Your task to perform on an android device: Go to notification settings Image 0: 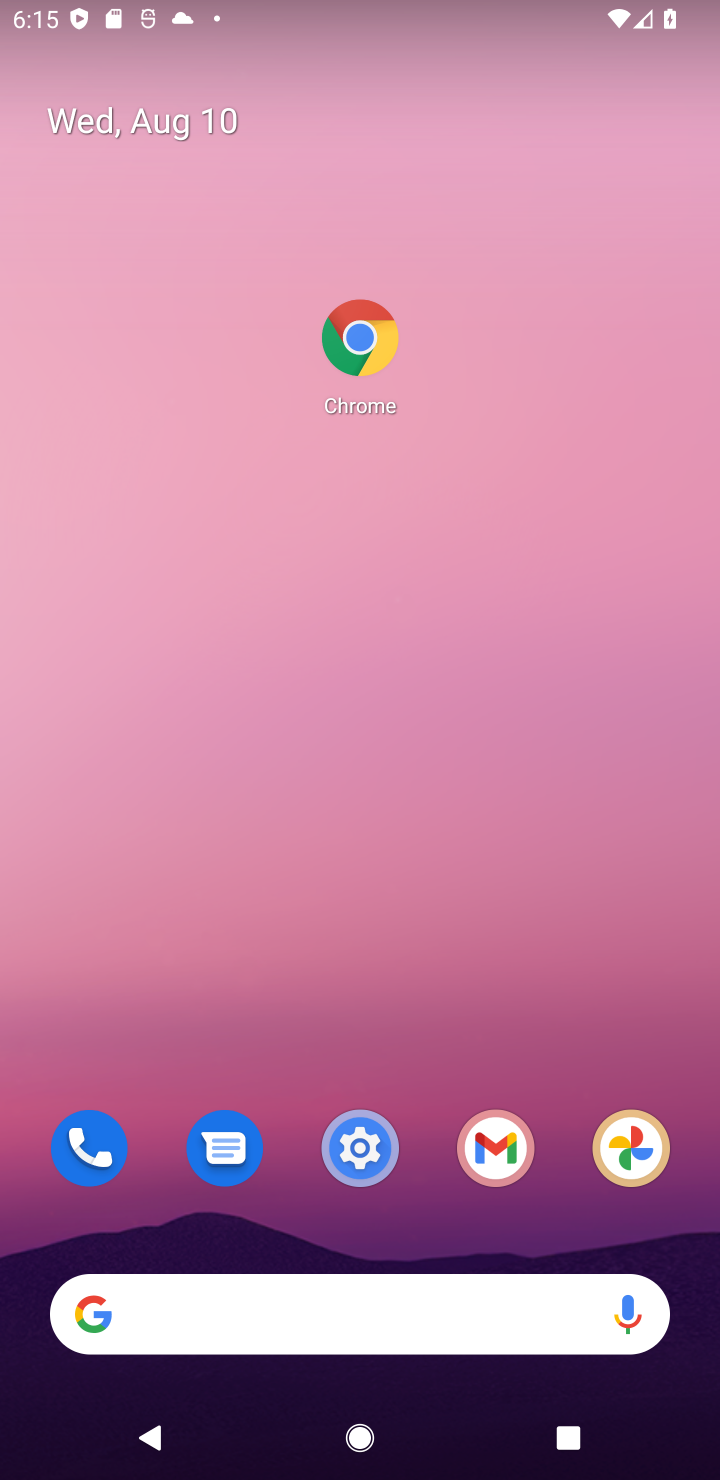
Step 0: click (335, 1156)
Your task to perform on an android device: Go to notification settings Image 1: 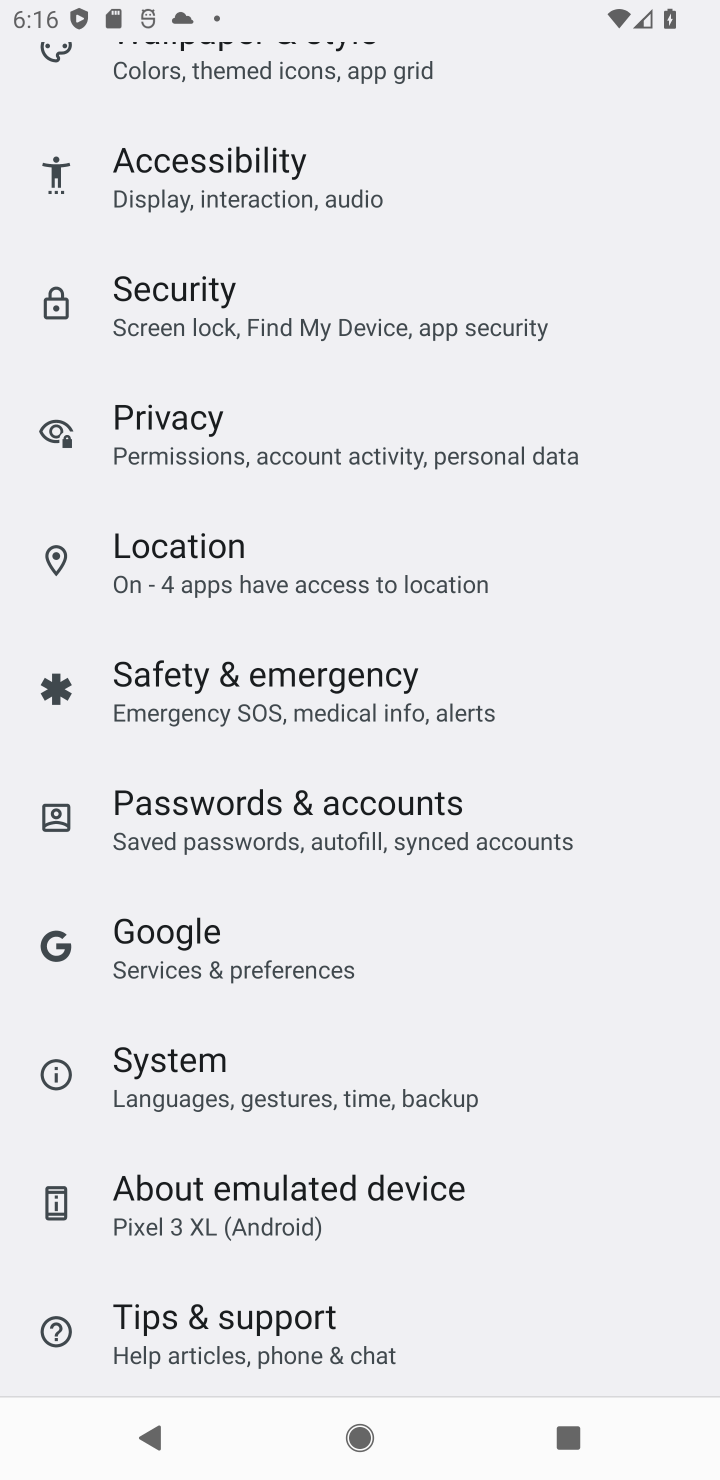
Step 1: drag from (677, 474) to (597, 899)
Your task to perform on an android device: Go to notification settings Image 2: 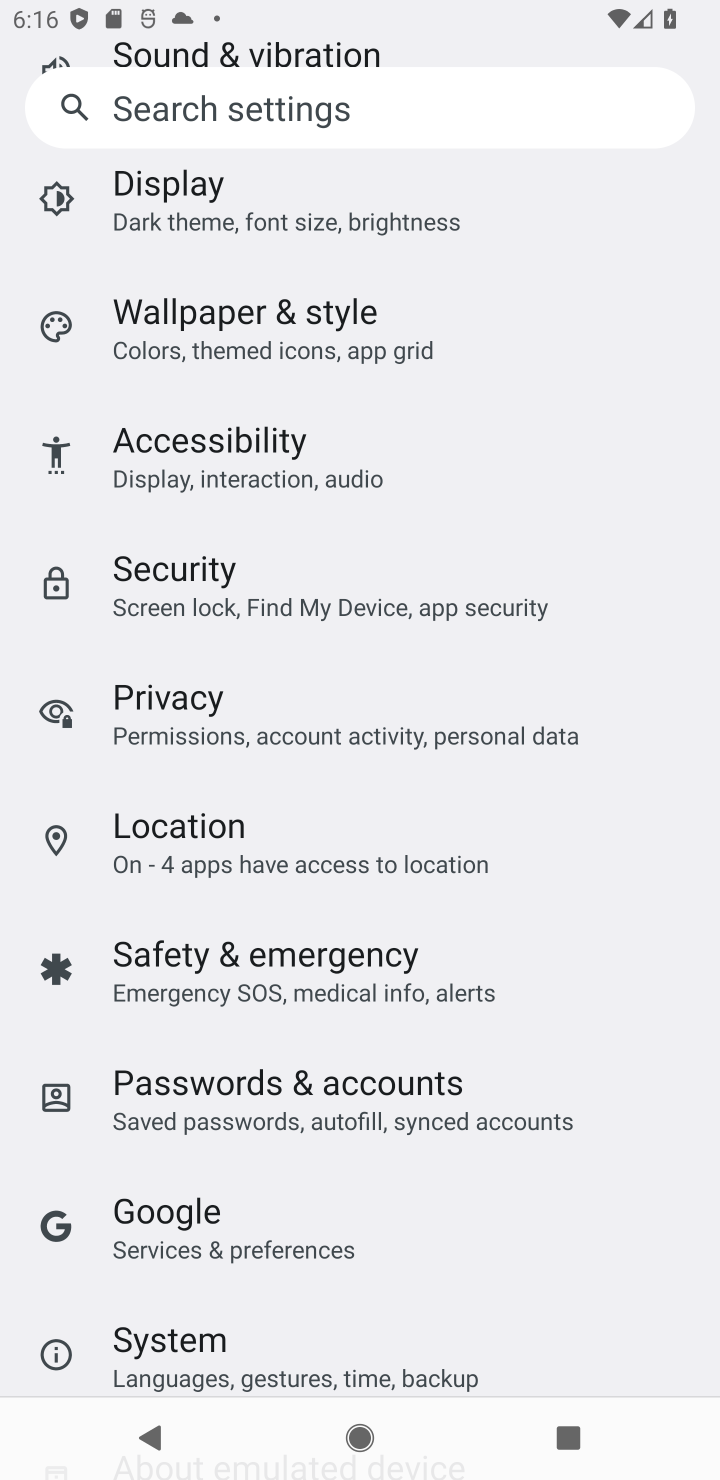
Step 2: drag from (390, 505) to (343, 835)
Your task to perform on an android device: Go to notification settings Image 3: 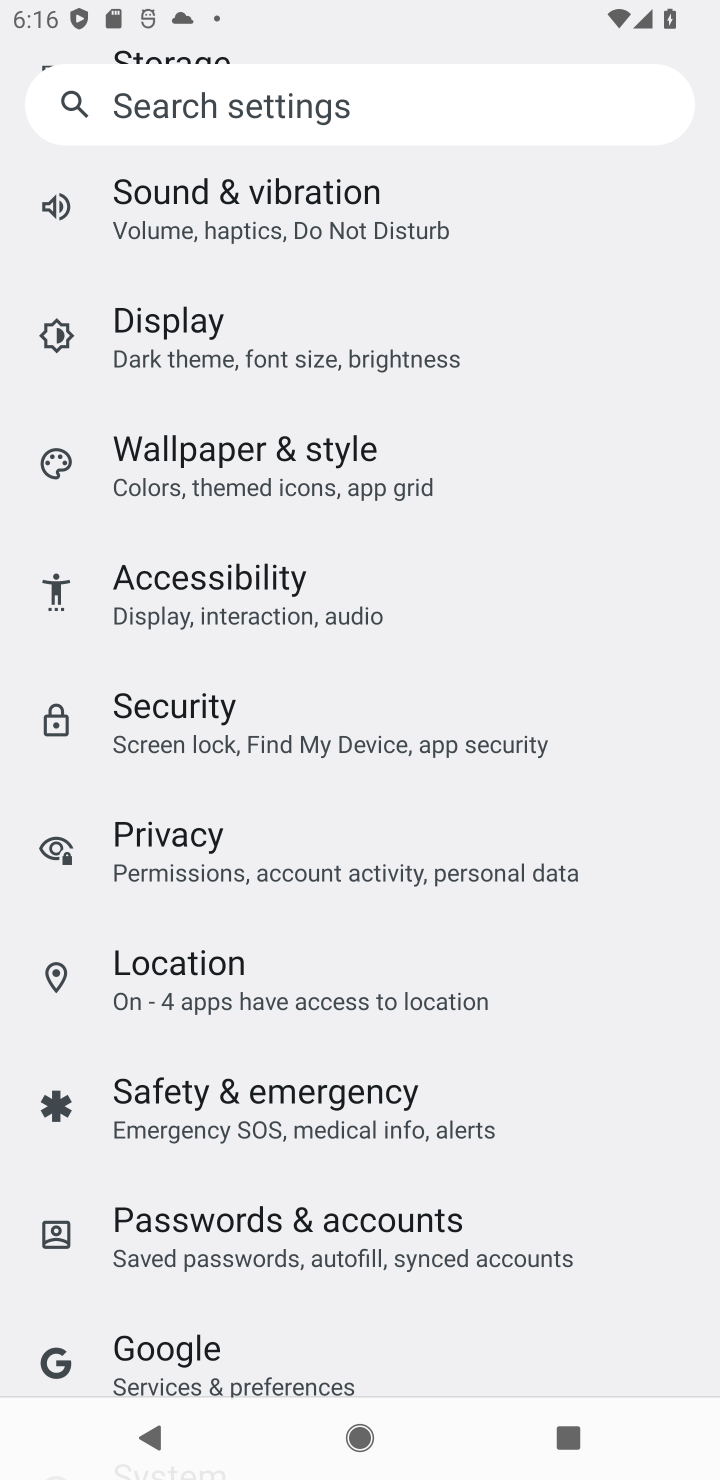
Step 3: drag from (571, 489) to (583, 772)
Your task to perform on an android device: Go to notification settings Image 4: 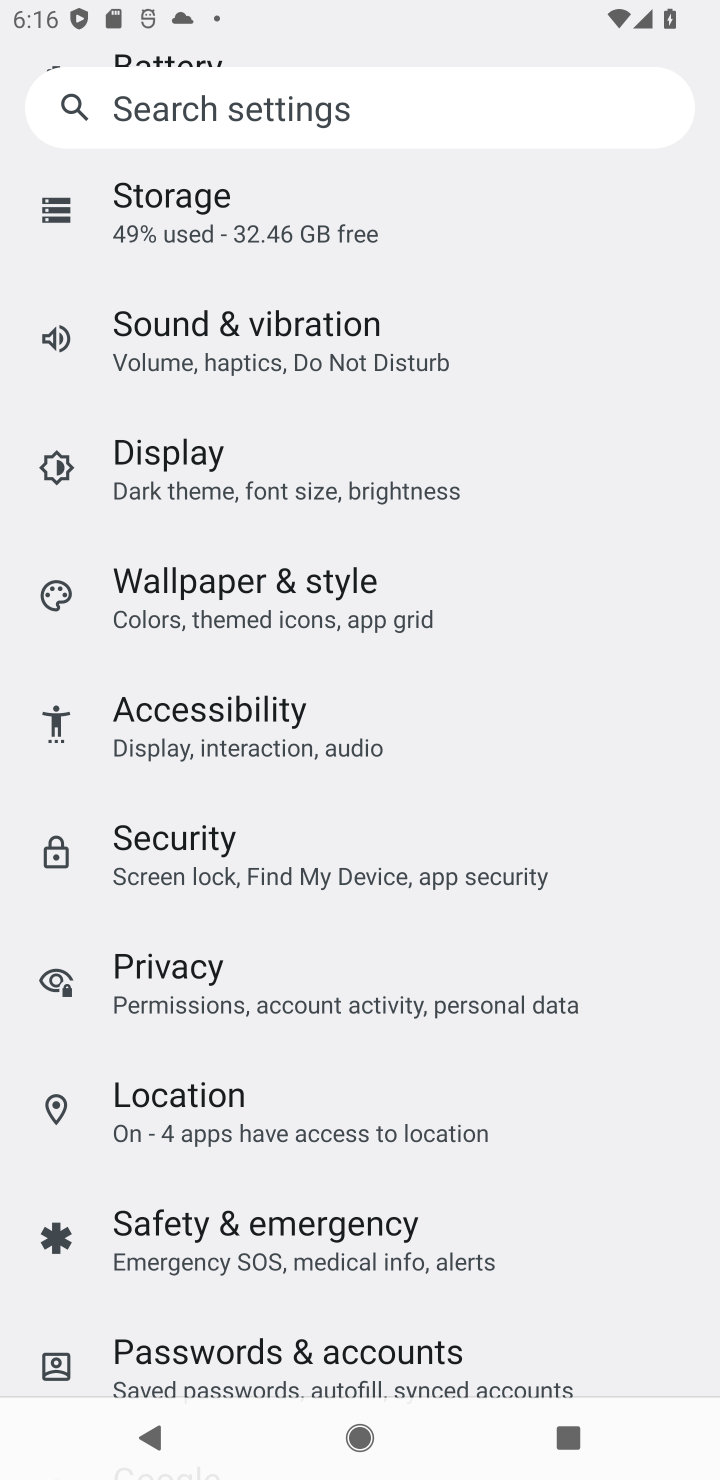
Step 4: drag from (349, 478) to (257, 1066)
Your task to perform on an android device: Go to notification settings Image 5: 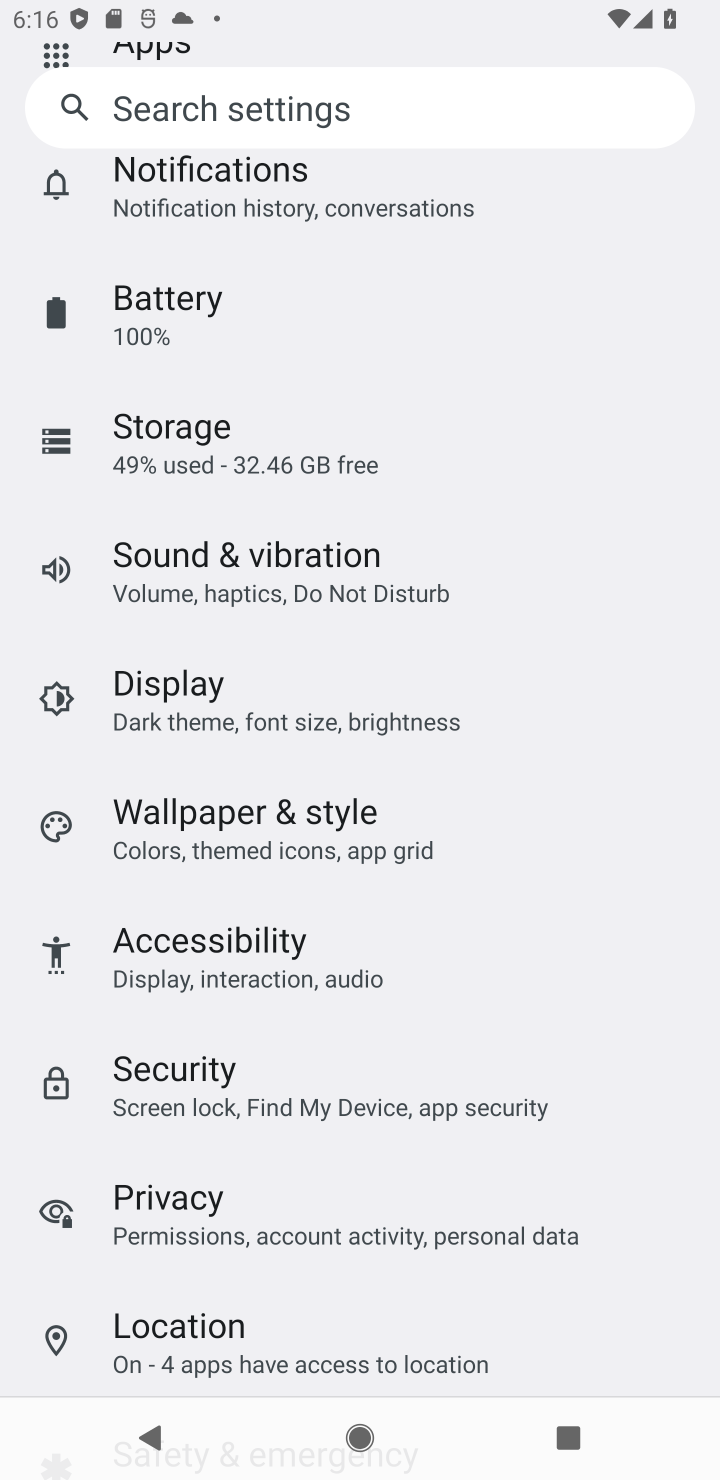
Step 5: drag from (482, 449) to (402, 845)
Your task to perform on an android device: Go to notification settings Image 6: 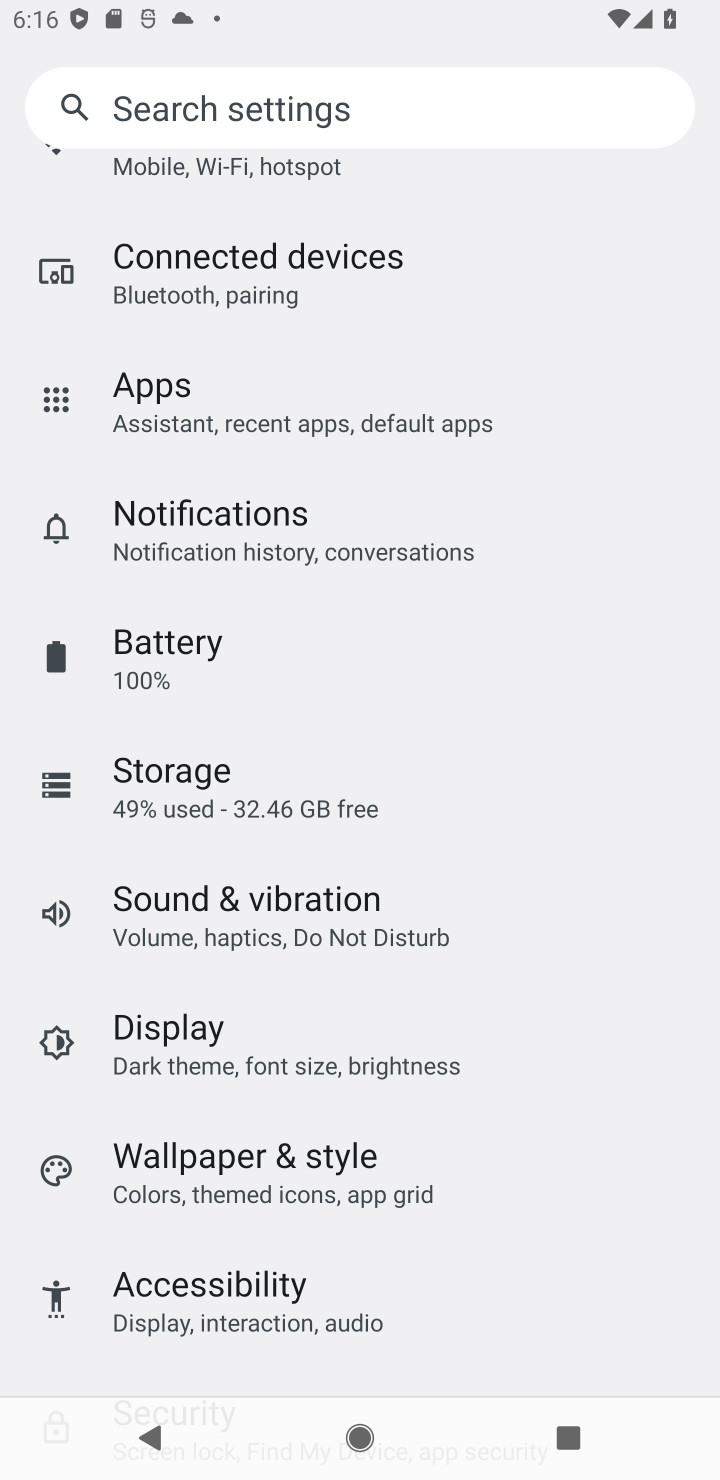
Step 6: click (322, 519)
Your task to perform on an android device: Go to notification settings Image 7: 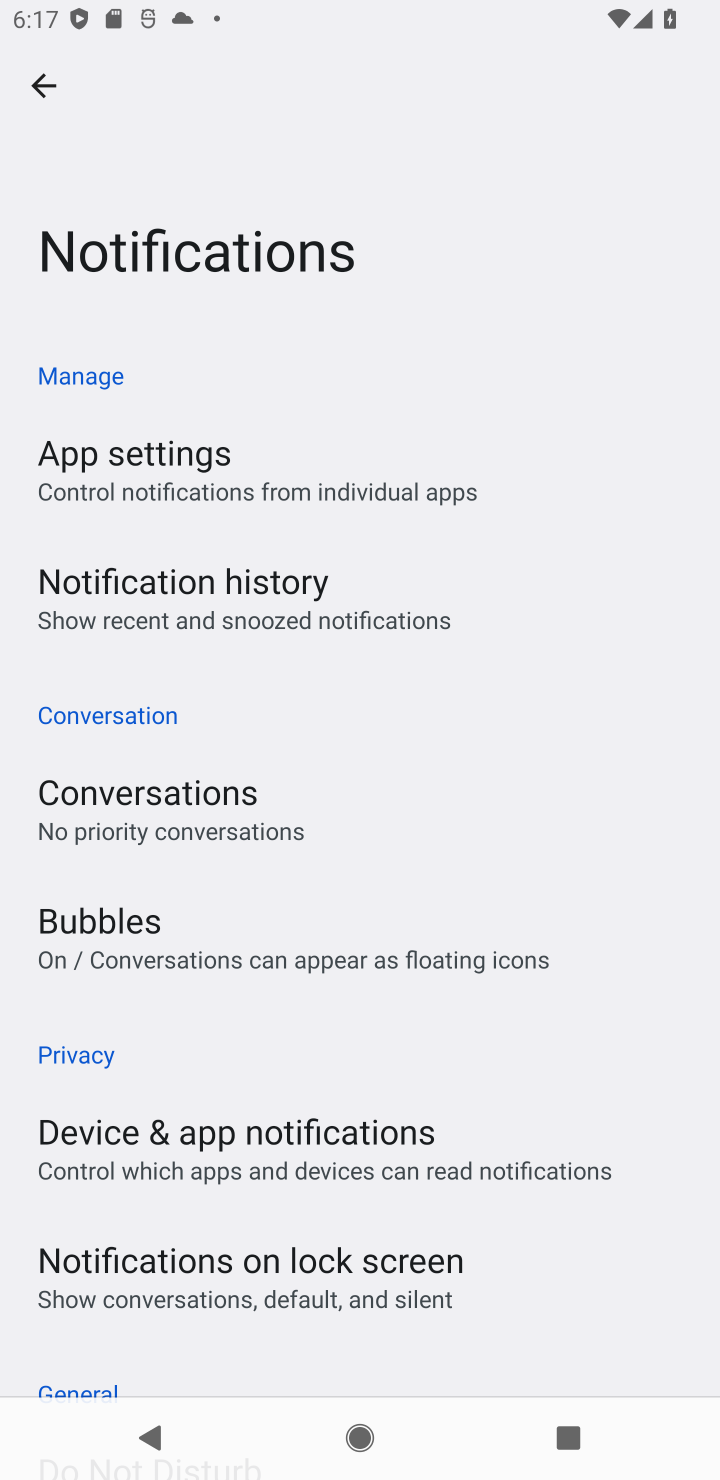
Step 7: task complete